Your task to perform on an android device: Open settings on Google Maps Image 0: 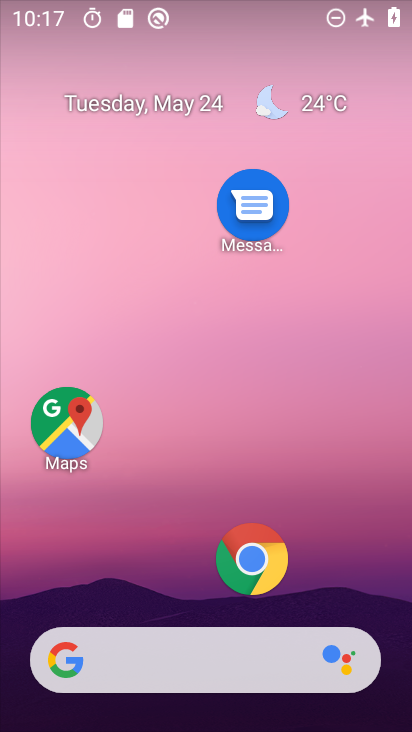
Step 0: click (66, 425)
Your task to perform on an android device: Open settings on Google Maps Image 1: 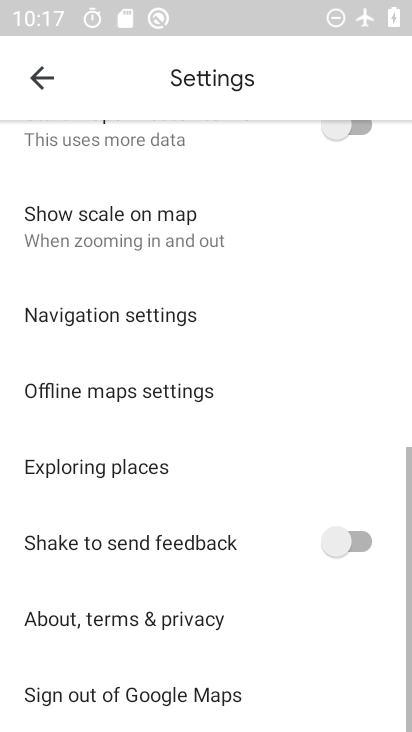
Step 1: task complete